Your task to perform on an android device: Search for custom wallets on etsy. Image 0: 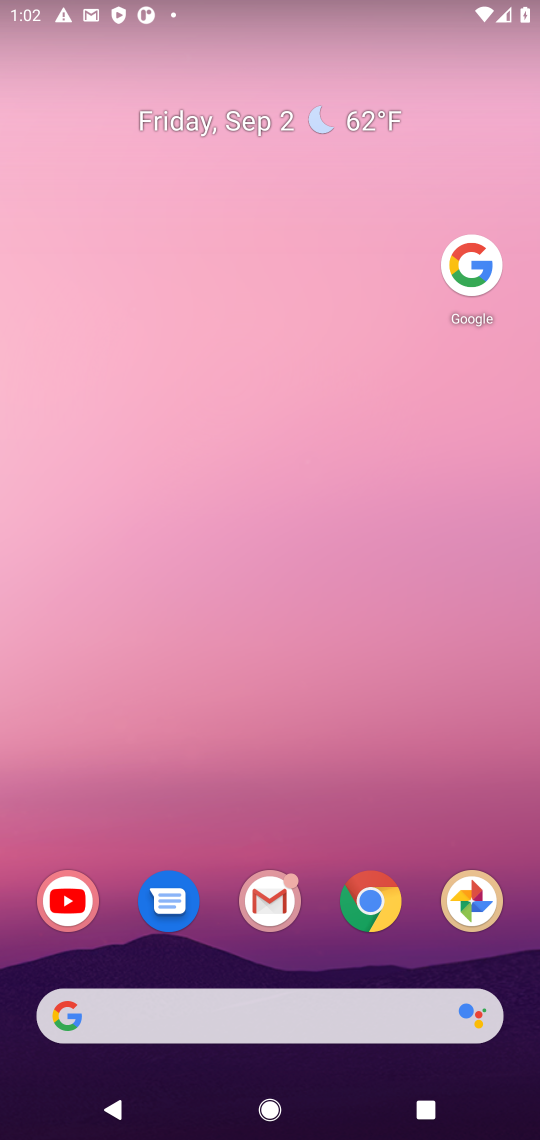
Step 0: click (290, 192)
Your task to perform on an android device: Search for custom wallets on etsy. Image 1: 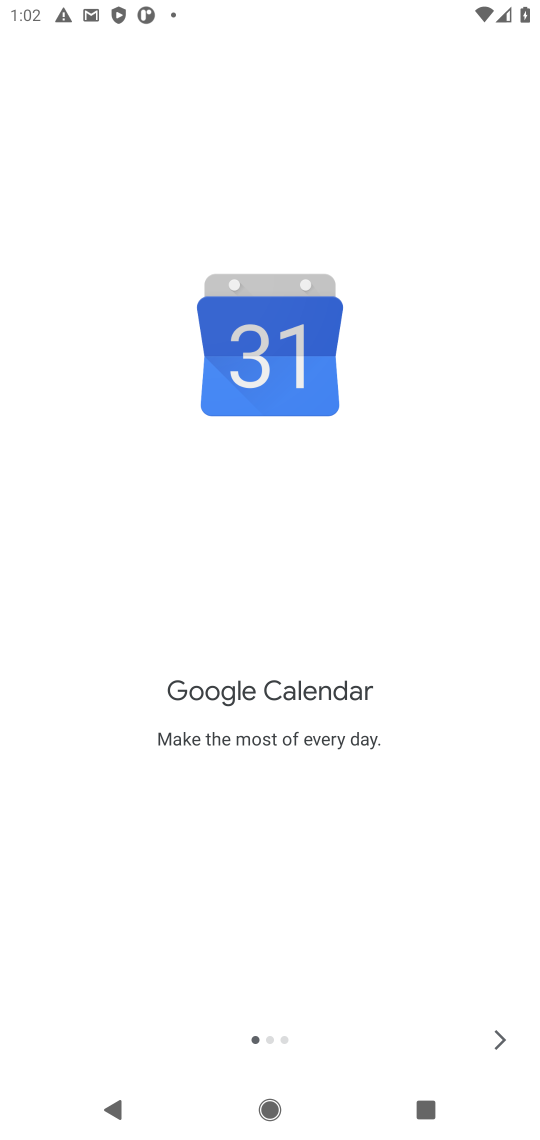
Step 1: press home button
Your task to perform on an android device: Search for custom wallets on etsy. Image 2: 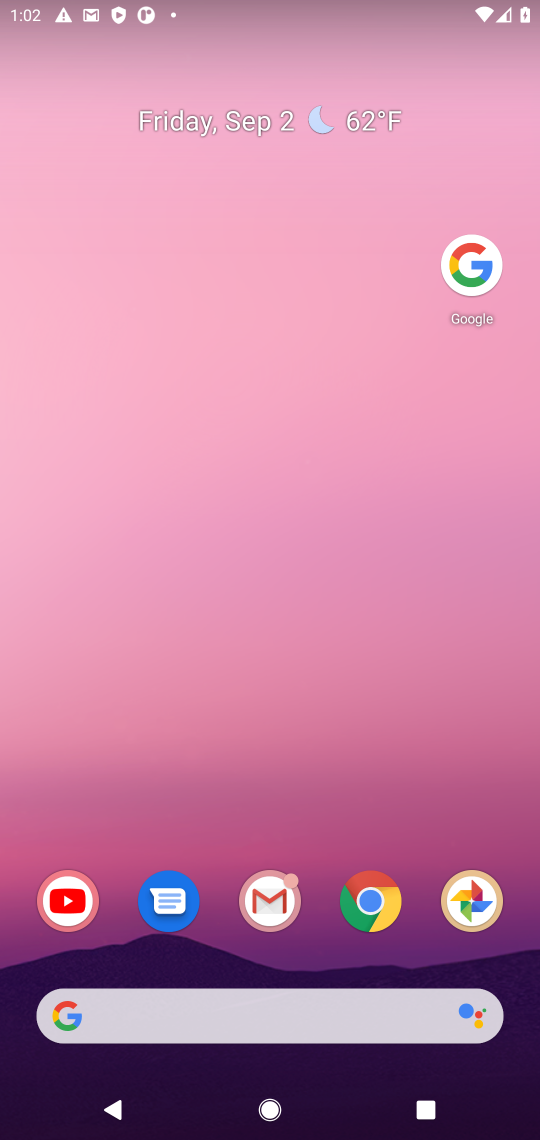
Step 2: drag from (300, 428) to (300, 155)
Your task to perform on an android device: Search for custom wallets on etsy. Image 3: 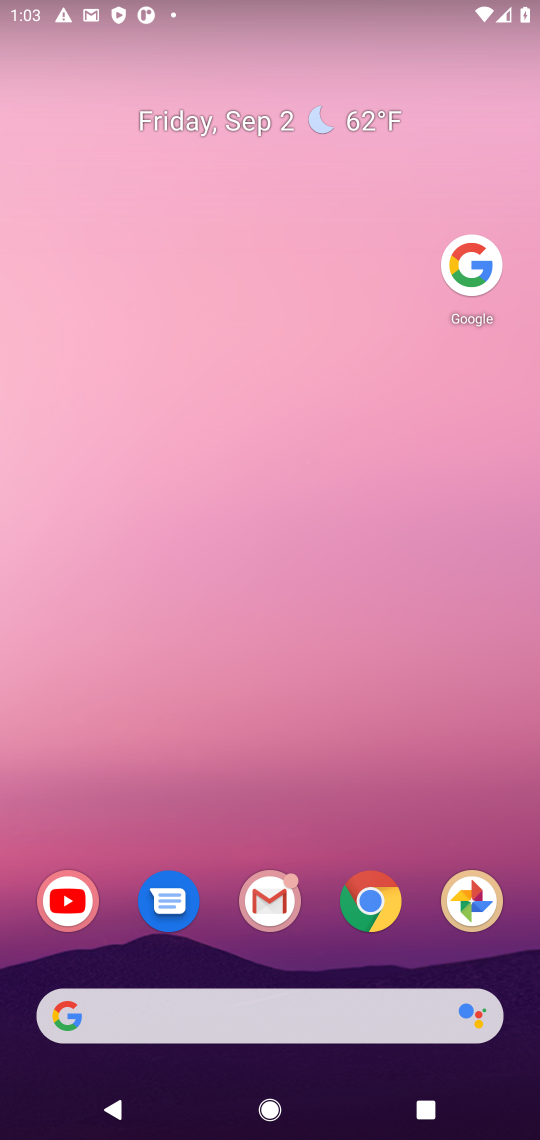
Step 3: click (478, 249)
Your task to perform on an android device: Search for custom wallets on etsy. Image 4: 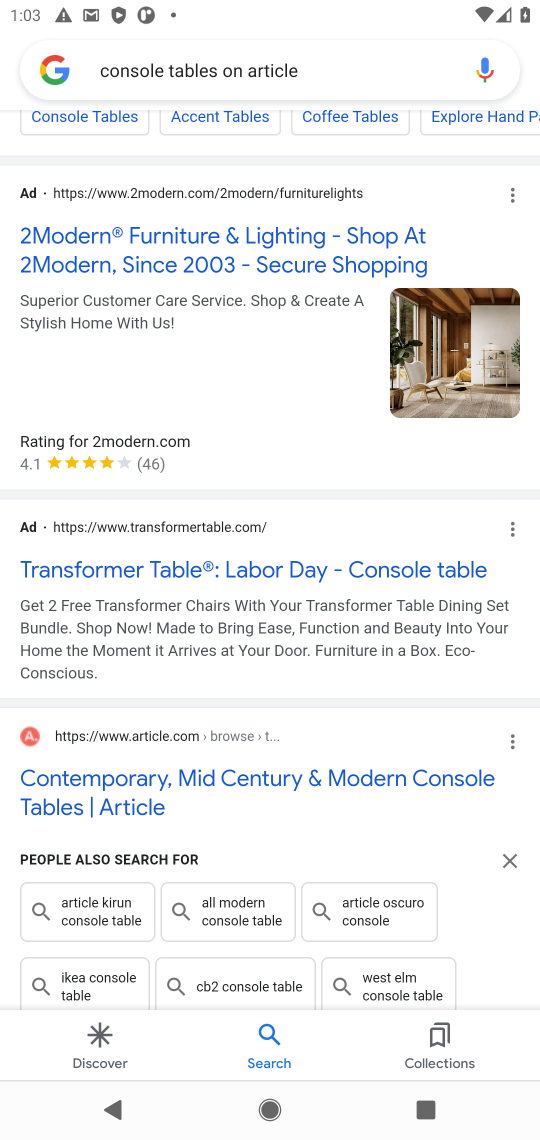
Step 4: click (318, 67)
Your task to perform on an android device: Search for custom wallets on etsy. Image 5: 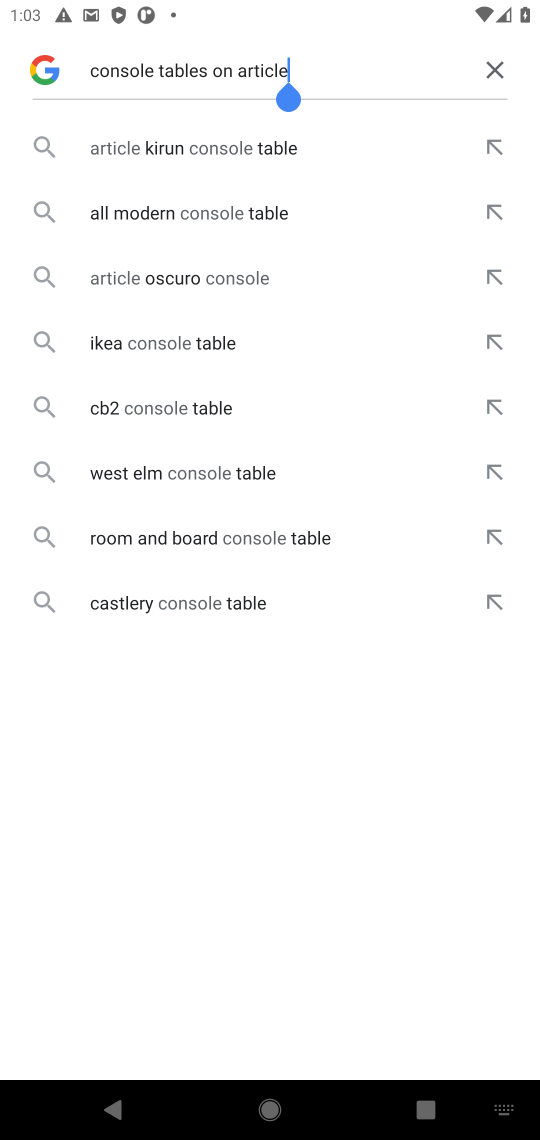
Step 5: click (497, 73)
Your task to perform on an android device: Search for custom wallets on etsy. Image 6: 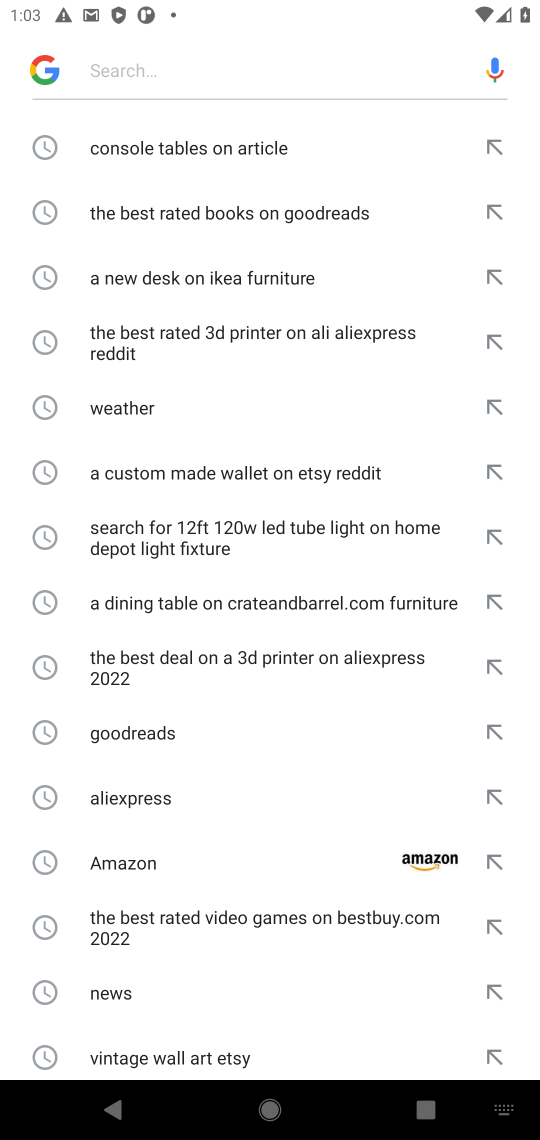
Step 6: click (256, 67)
Your task to perform on an android device: Search for custom wallets on etsy. Image 7: 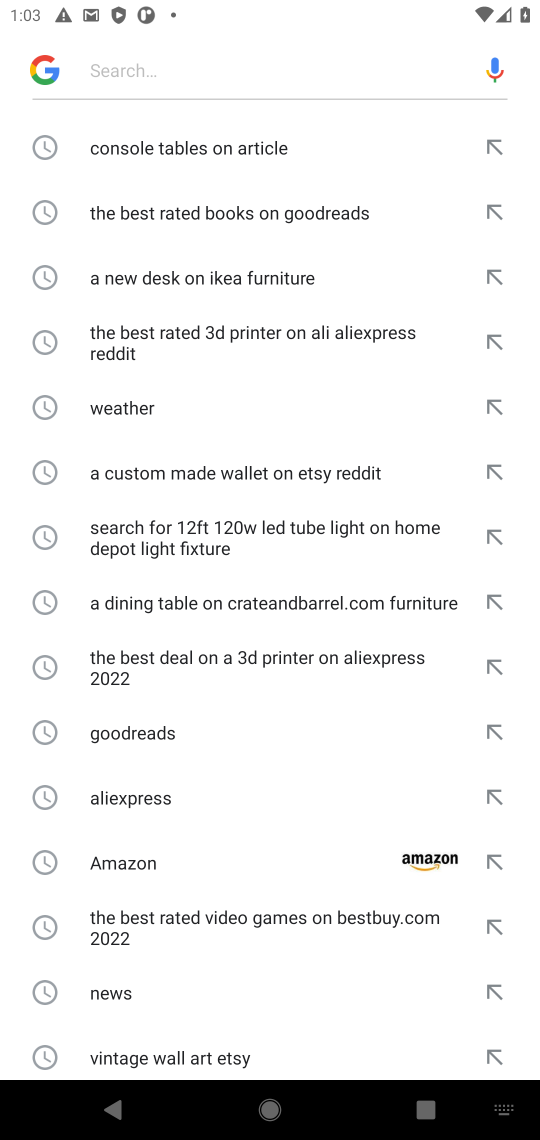
Step 7: type "custom wallets on etsy "
Your task to perform on an android device: Search for custom wallets on etsy. Image 8: 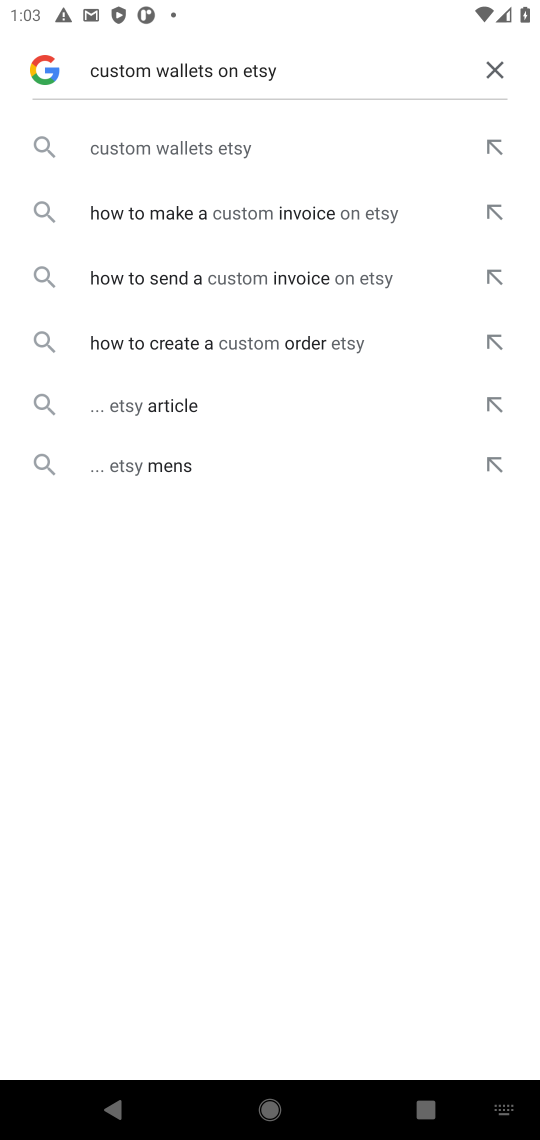
Step 8: click (225, 151)
Your task to perform on an android device: Search for custom wallets on etsy. Image 9: 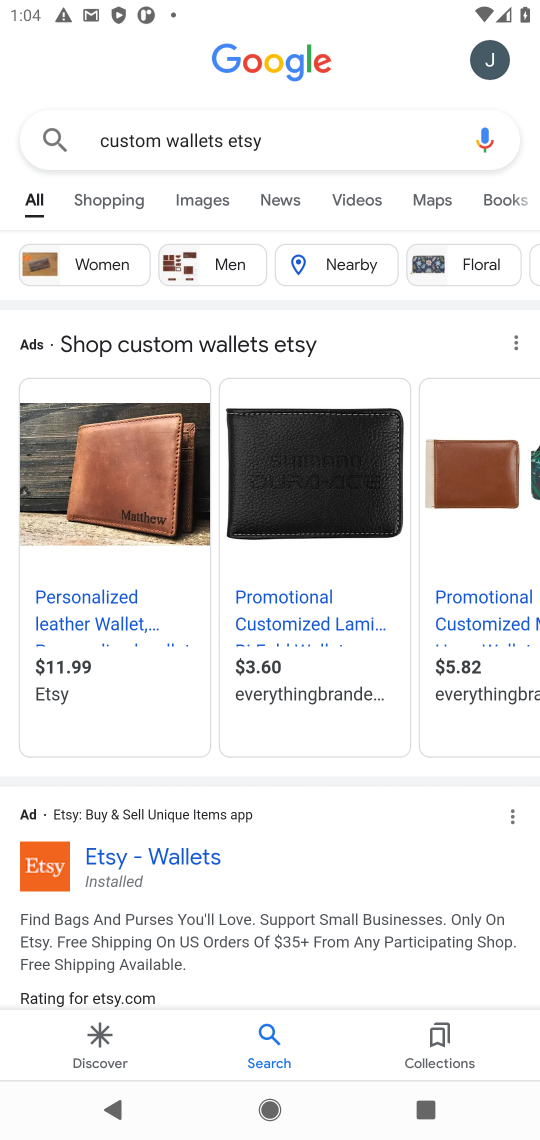
Step 9: click (184, 853)
Your task to perform on an android device: Search for custom wallets on etsy. Image 10: 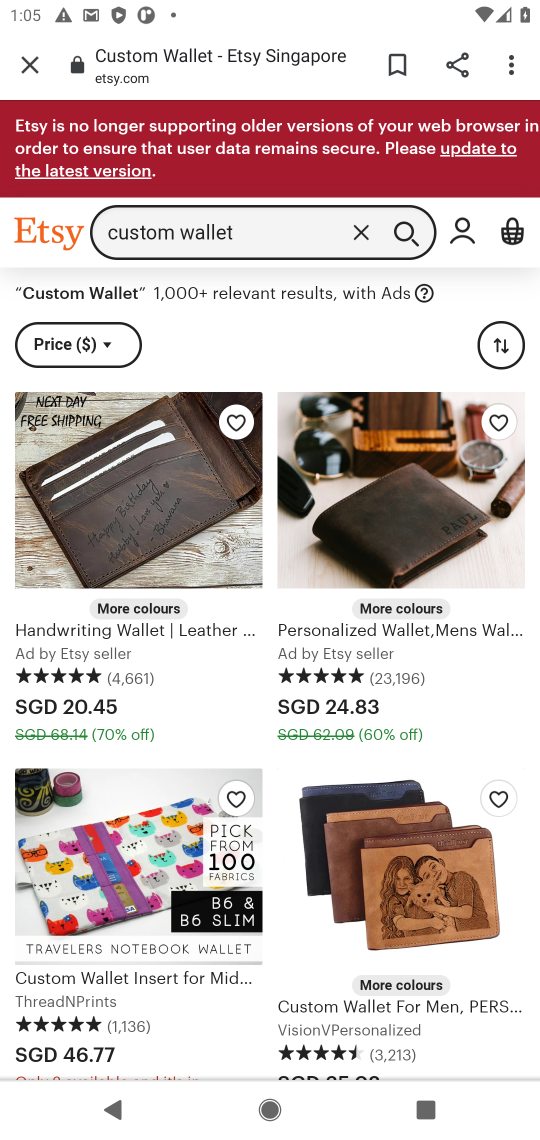
Step 10: drag from (132, 648) to (141, 426)
Your task to perform on an android device: Search for custom wallets on etsy. Image 11: 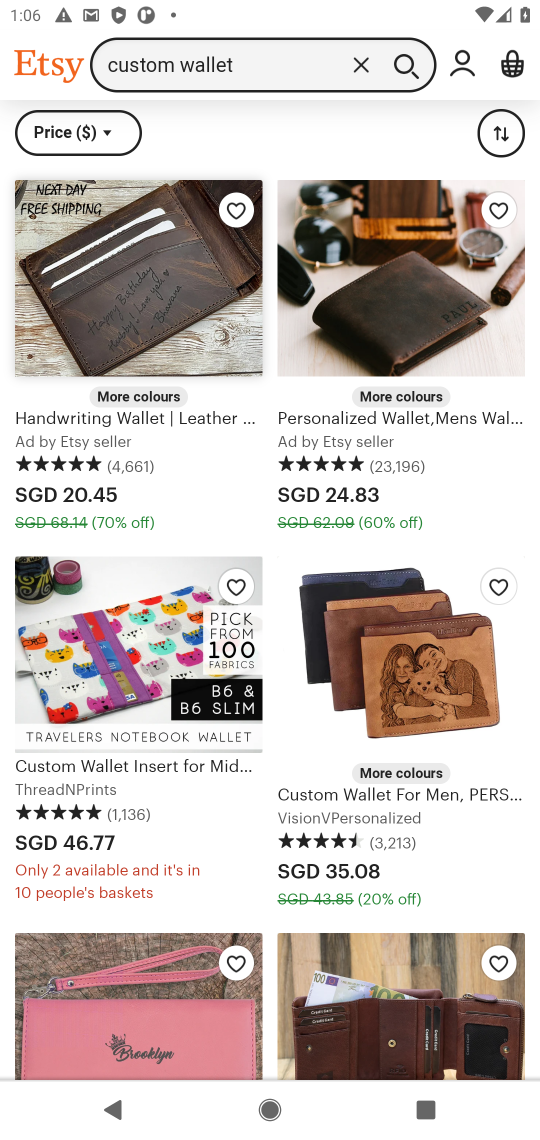
Step 11: drag from (164, 852) to (172, 351)
Your task to perform on an android device: Search for custom wallets on etsy. Image 12: 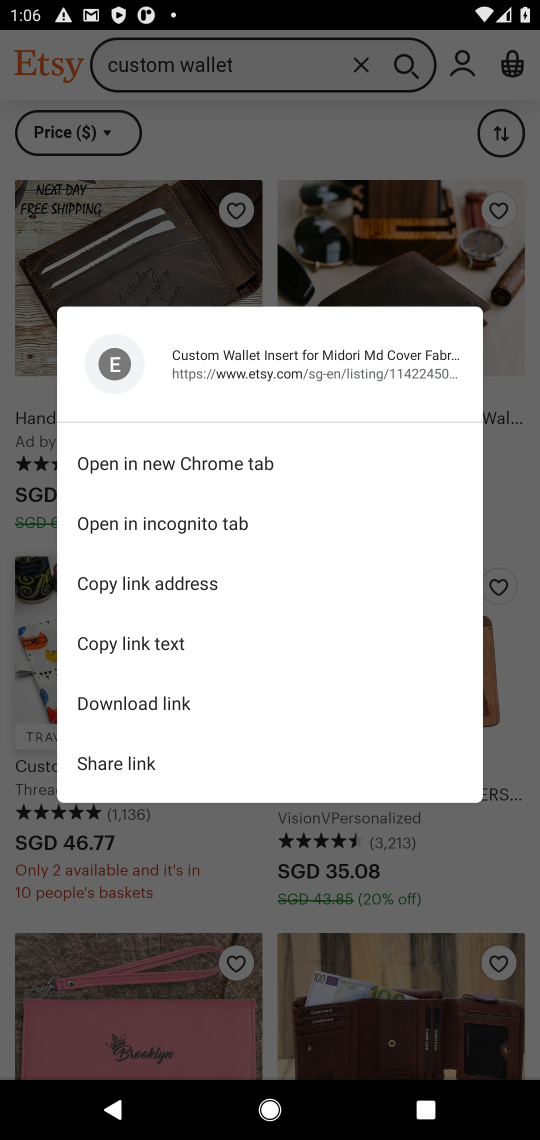
Step 12: click (260, 147)
Your task to perform on an android device: Search for custom wallets on etsy. Image 13: 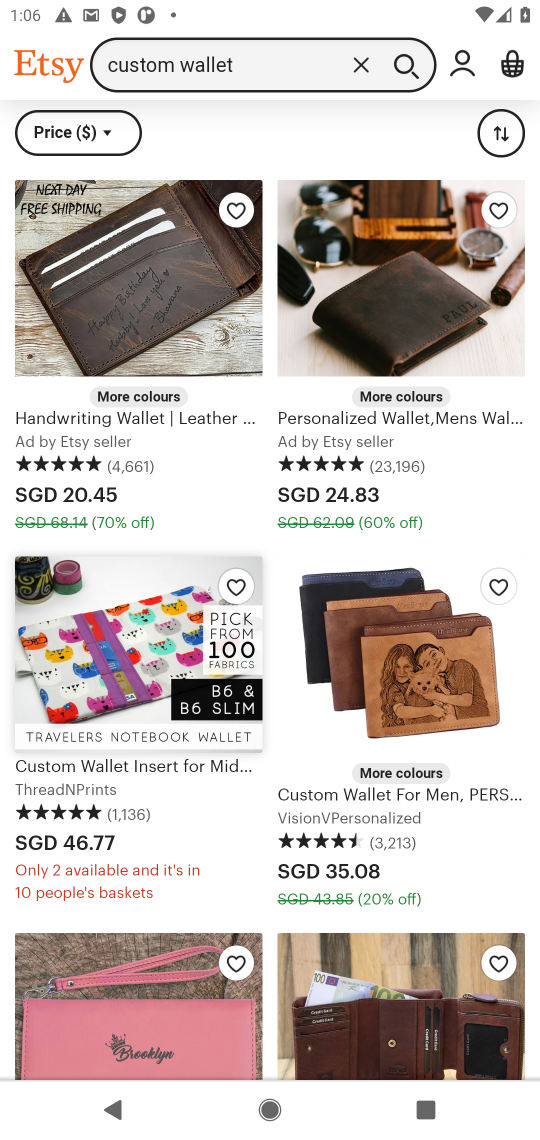
Step 13: task complete